Your task to perform on an android device: What's on my calendar tomorrow? Image 0: 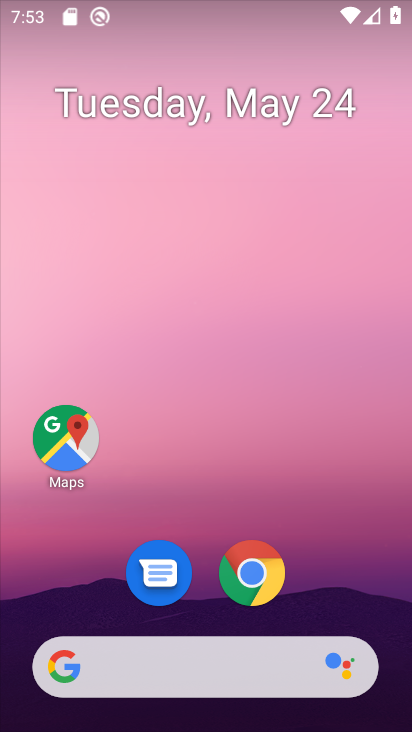
Step 0: drag from (331, 600) to (286, 91)
Your task to perform on an android device: What's on my calendar tomorrow? Image 1: 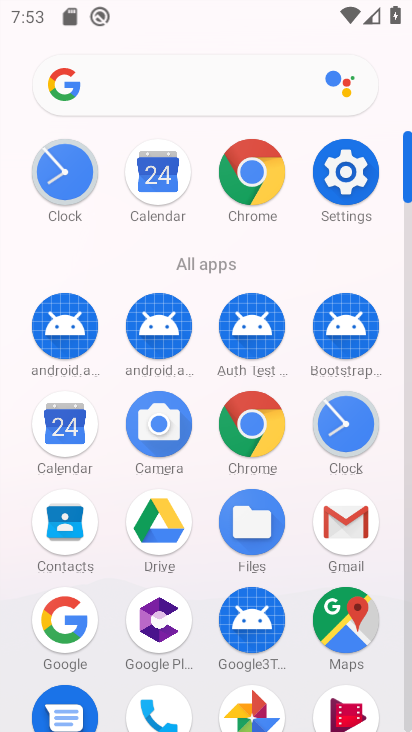
Step 1: click (60, 424)
Your task to perform on an android device: What's on my calendar tomorrow? Image 2: 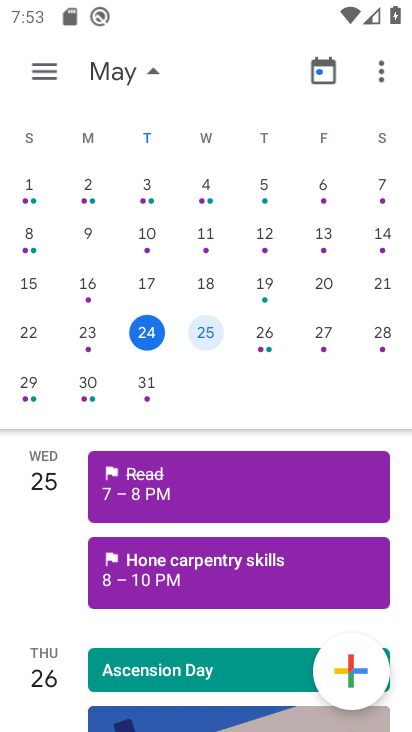
Step 2: click (193, 339)
Your task to perform on an android device: What's on my calendar tomorrow? Image 3: 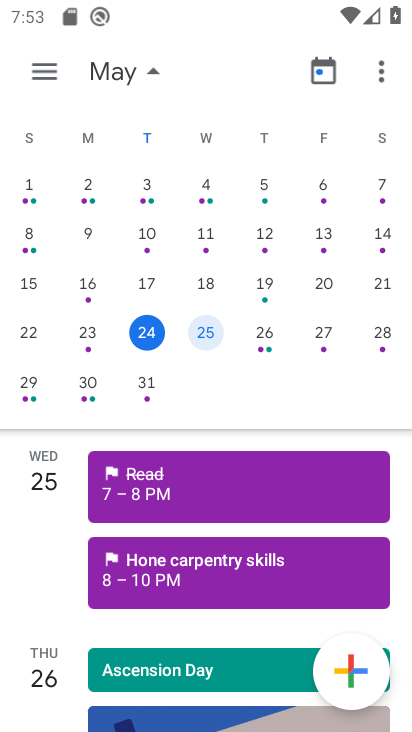
Step 3: task complete